Your task to perform on an android device: toggle priority inbox in the gmail app Image 0: 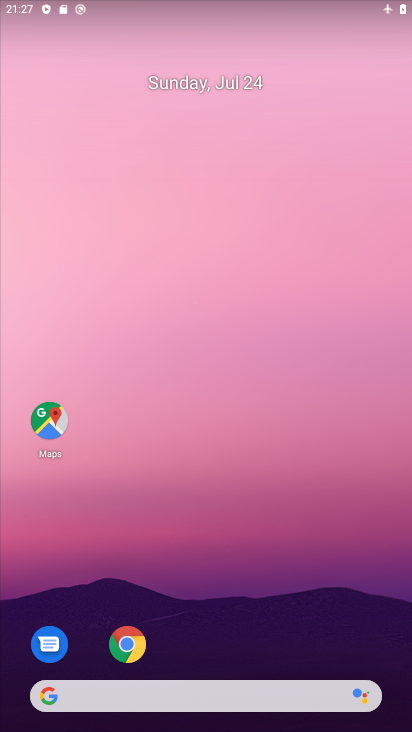
Step 0: drag from (381, 646) to (353, 124)
Your task to perform on an android device: toggle priority inbox in the gmail app Image 1: 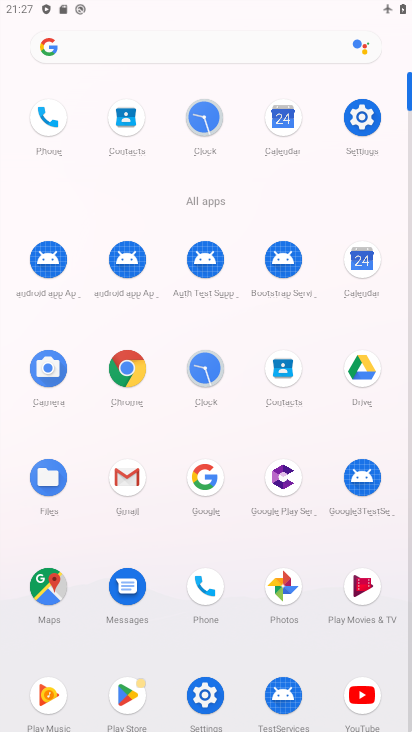
Step 1: click (131, 473)
Your task to perform on an android device: toggle priority inbox in the gmail app Image 2: 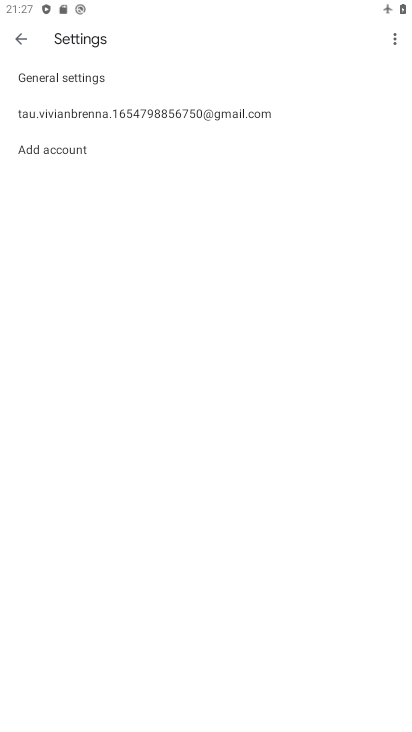
Step 2: click (97, 115)
Your task to perform on an android device: toggle priority inbox in the gmail app Image 3: 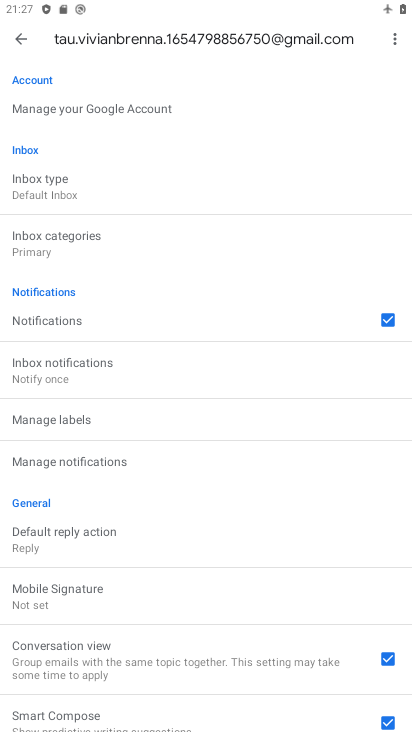
Step 3: click (60, 189)
Your task to perform on an android device: toggle priority inbox in the gmail app Image 4: 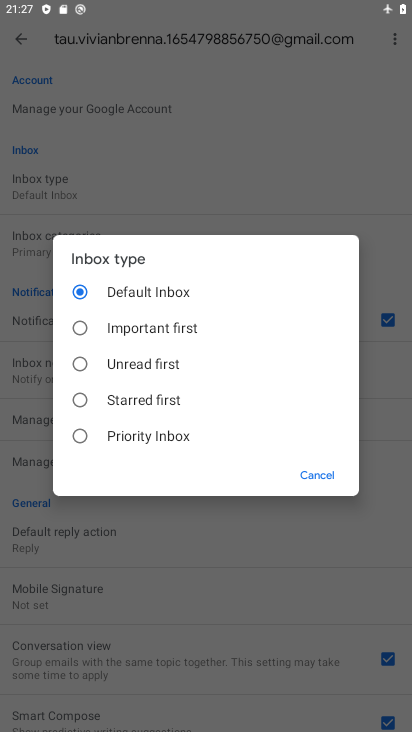
Step 4: click (86, 438)
Your task to perform on an android device: toggle priority inbox in the gmail app Image 5: 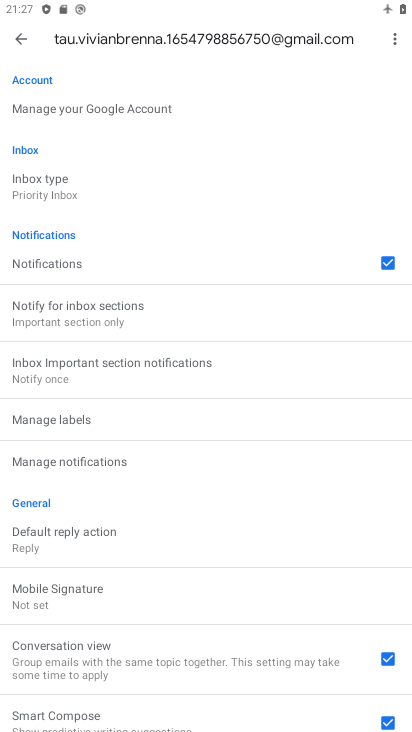
Step 5: task complete